Your task to perform on an android device: Turn off the flashlight Image 0: 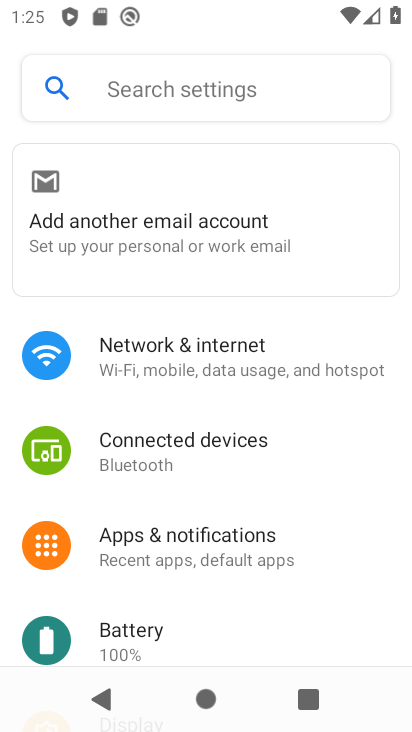
Step 0: click (150, 378)
Your task to perform on an android device: Turn off the flashlight Image 1: 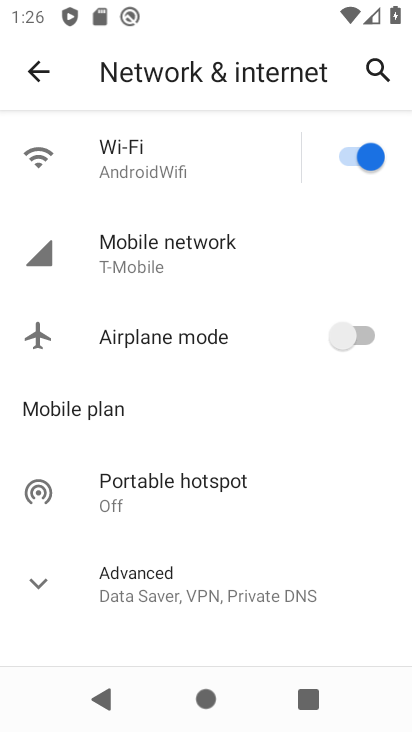
Step 1: task complete